Your task to perform on an android device: toggle wifi Image 0: 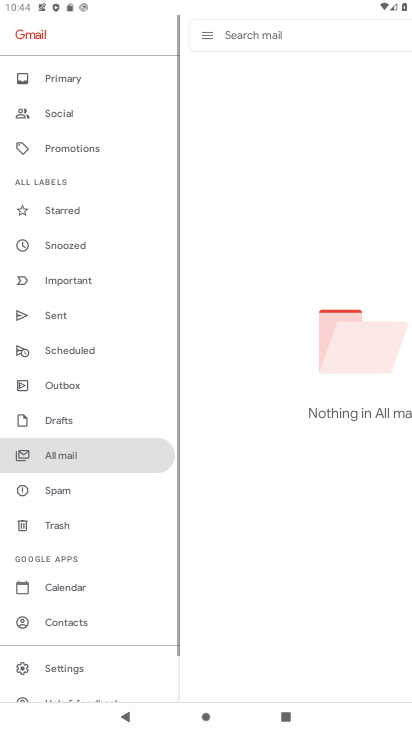
Step 0: press home button
Your task to perform on an android device: toggle wifi Image 1: 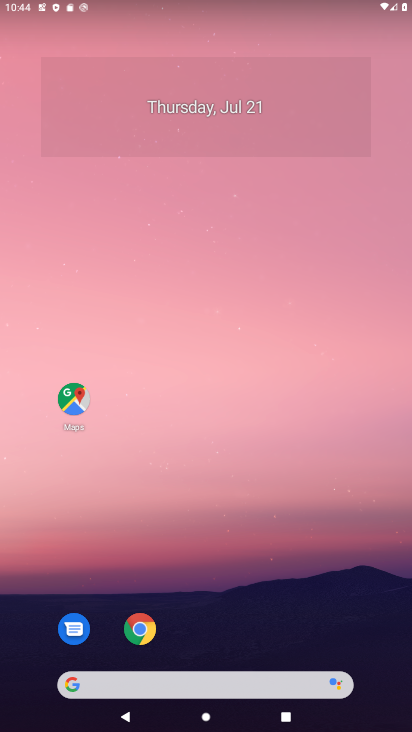
Step 1: drag from (317, 631) to (230, 107)
Your task to perform on an android device: toggle wifi Image 2: 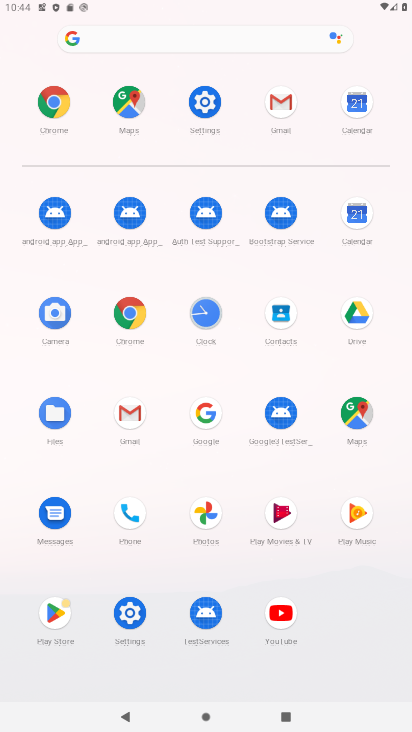
Step 2: click (215, 101)
Your task to perform on an android device: toggle wifi Image 3: 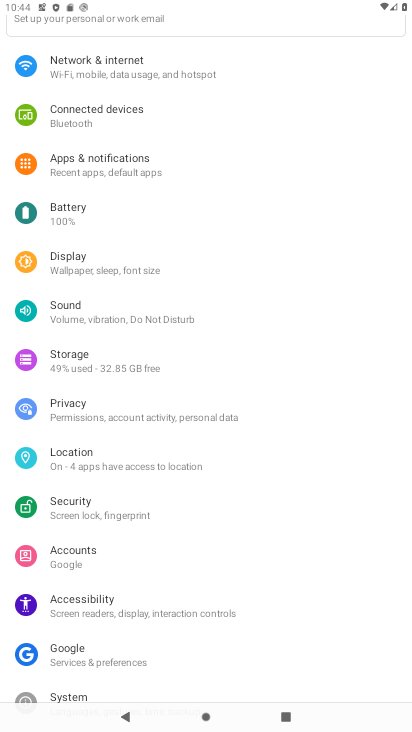
Step 3: click (150, 76)
Your task to perform on an android device: toggle wifi Image 4: 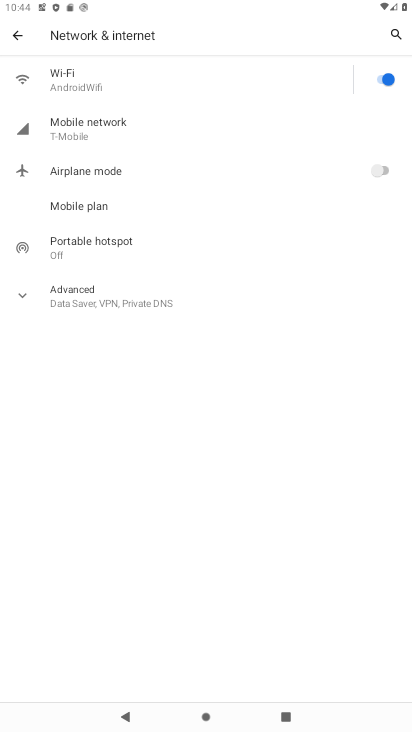
Step 4: click (376, 69)
Your task to perform on an android device: toggle wifi Image 5: 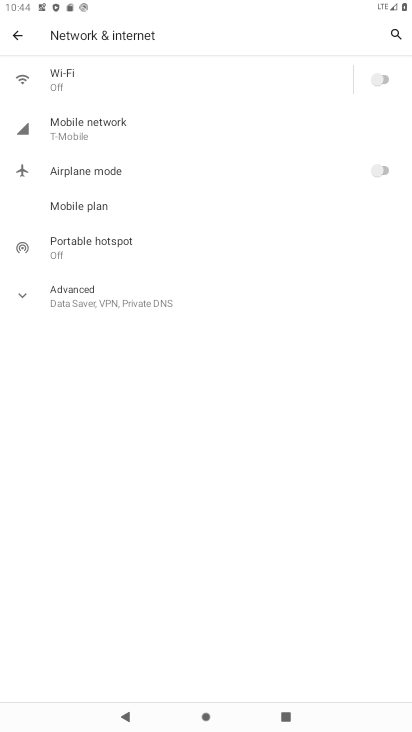
Step 5: task complete